Your task to perform on an android device: Do I have any events this weekend? Image 0: 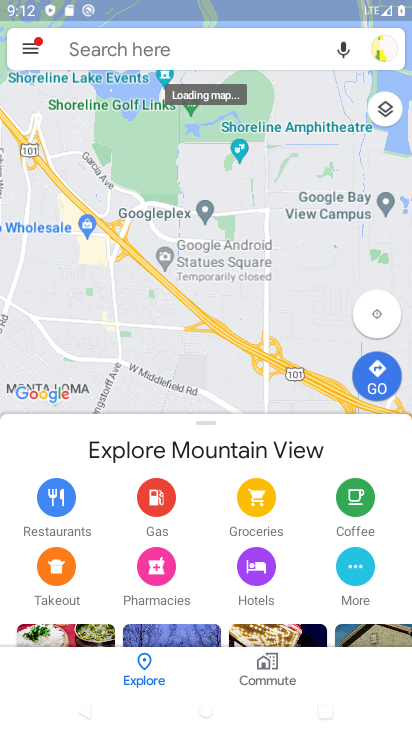
Step 0: press home button
Your task to perform on an android device: Do I have any events this weekend? Image 1: 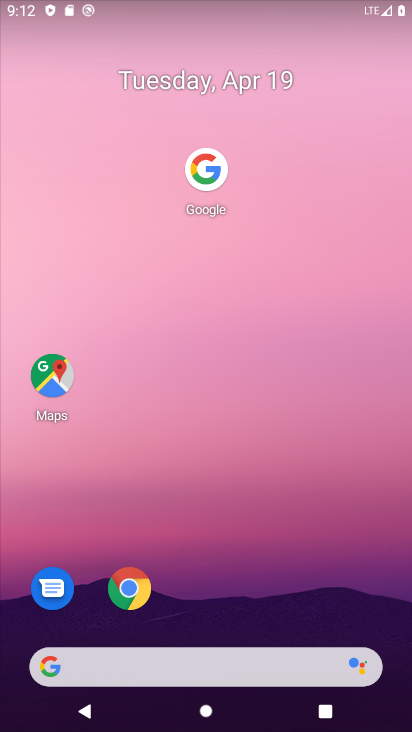
Step 1: drag from (229, 593) to (111, 22)
Your task to perform on an android device: Do I have any events this weekend? Image 2: 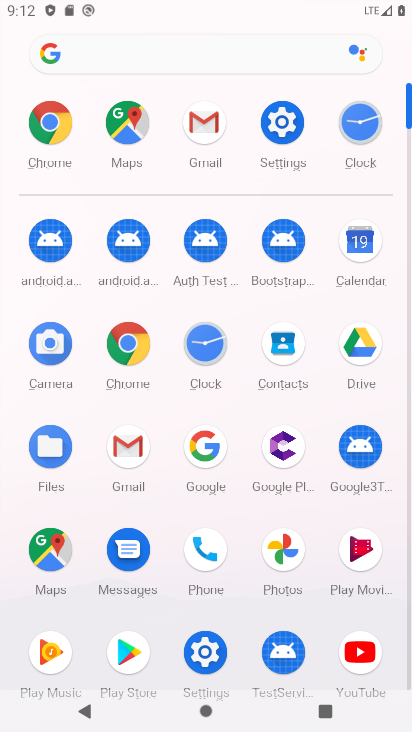
Step 2: click (361, 245)
Your task to perform on an android device: Do I have any events this weekend? Image 3: 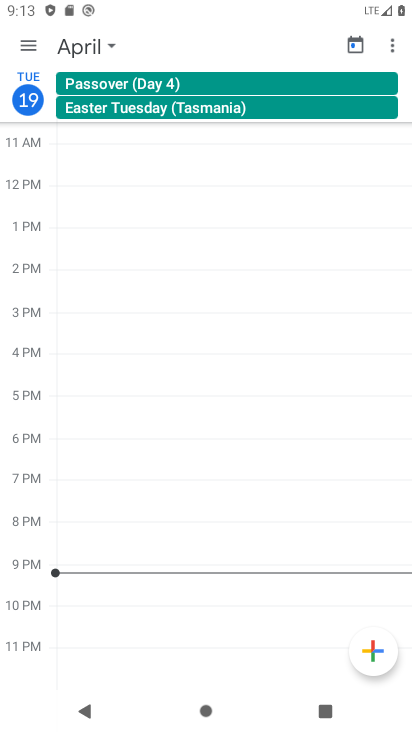
Step 3: click (26, 42)
Your task to perform on an android device: Do I have any events this weekend? Image 4: 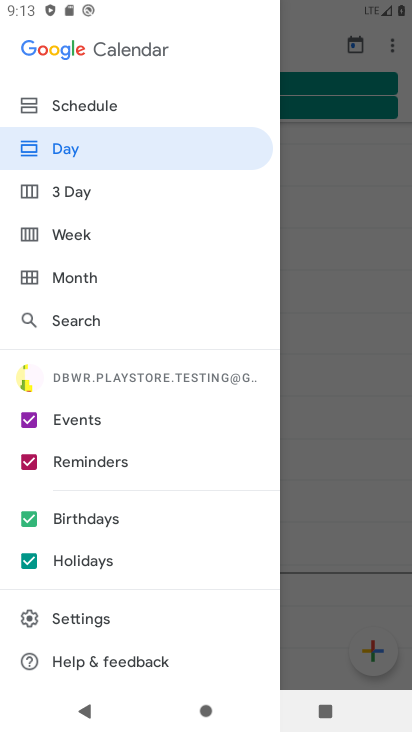
Step 4: click (68, 237)
Your task to perform on an android device: Do I have any events this weekend? Image 5: 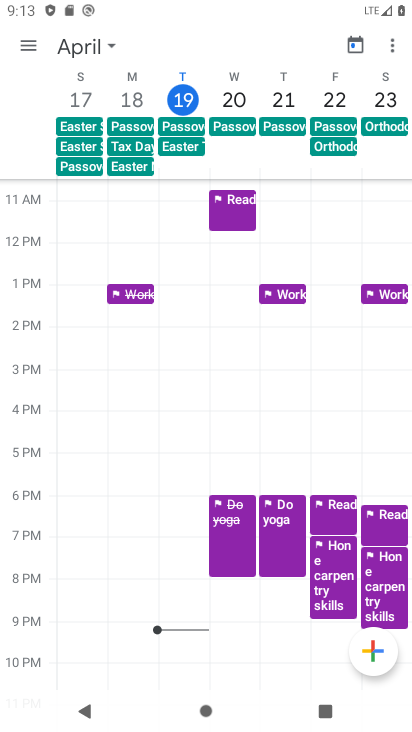
Step 5: task complete